Your task to perform on an android device: See recent photos Image 0: 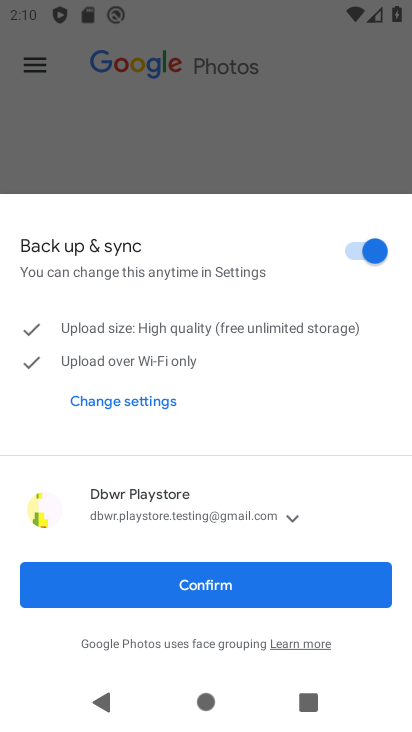
Step 0: press home button
Your task to perform on an android device: See recent photos Image 1: 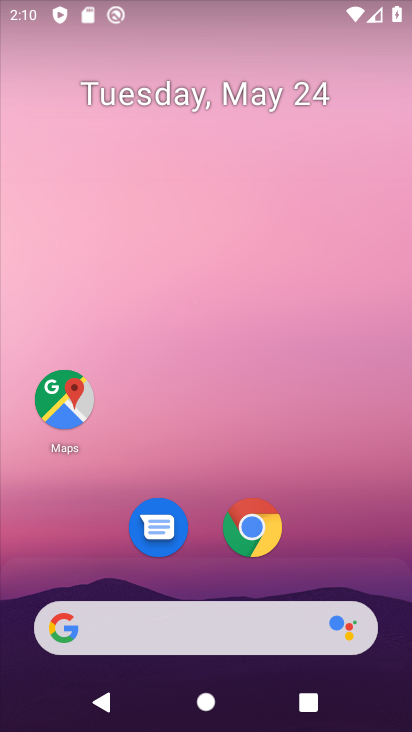
Step 1: drag from (184, 572) to (187, 152)
Your task to perform on an android device: See recent photos Image 2: 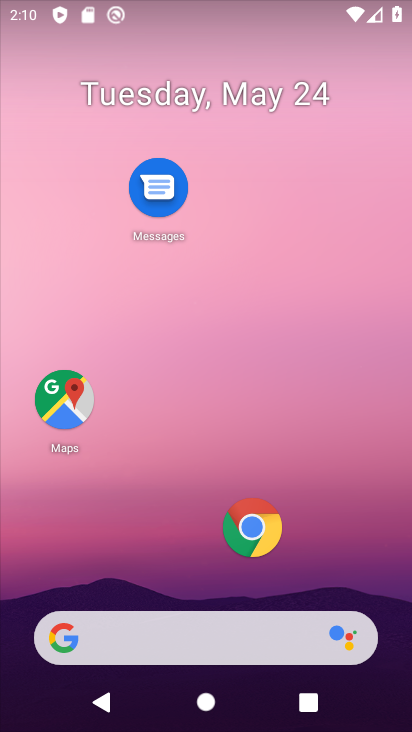
Step 2: drag from (165, 351) to (186, 225)
Your task to perform on an android device: See recent photos Image 3: 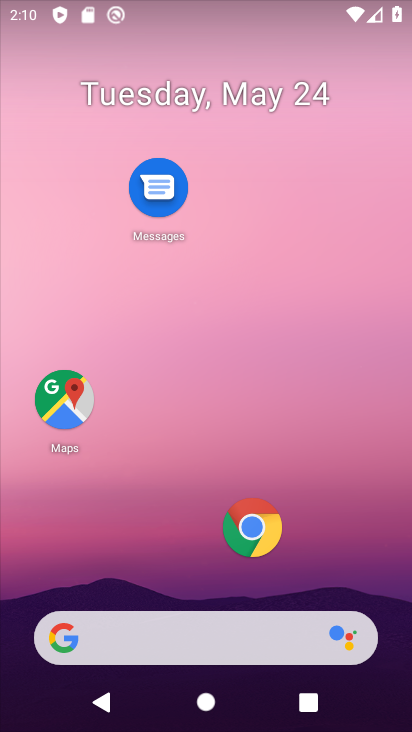
Step 3: drag from (178, 581) to (204, 122)
Your task to perform on an android device: See recent photos Image 4: 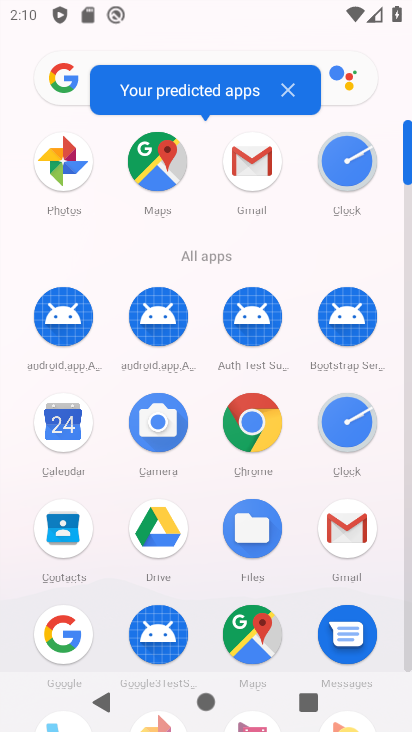
Step 4: click (63, 164)
Your task to perform on an android device: See recent photos Image 5: 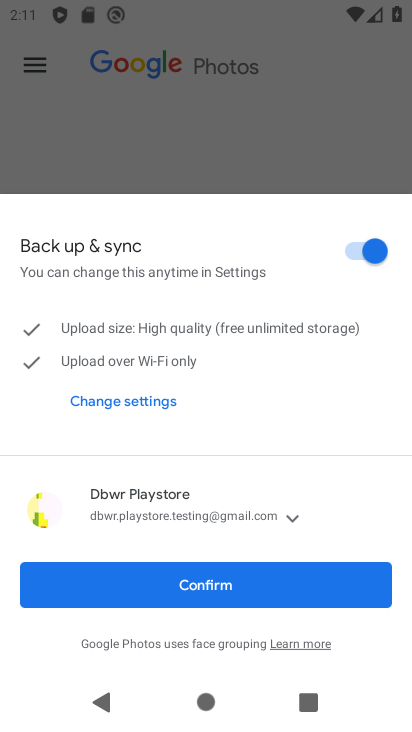
Step 5: click (271, 584)
Your task to perform on an android device: See recent photos Image 6: 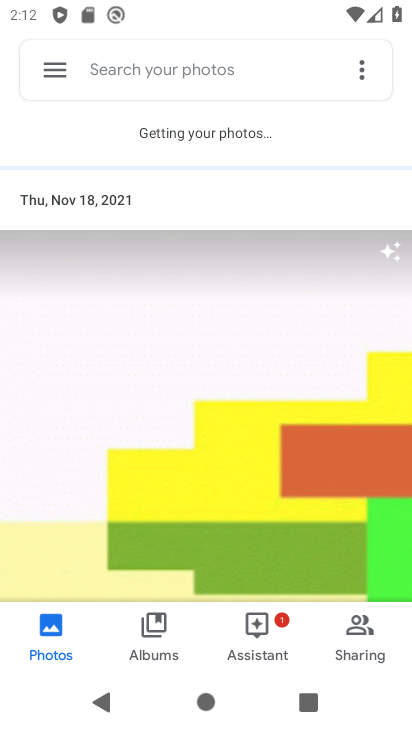
Step 6: click (149, 640)
Your task to perform on an android device: See recent photos Image 7: 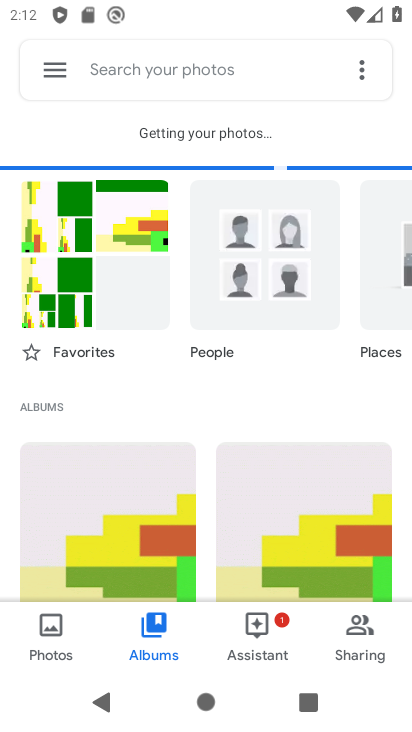
Step 7: task complete